Your task to perform on an android device: Open the calendar app, open the side menu, and click the "Day" option Image 0: 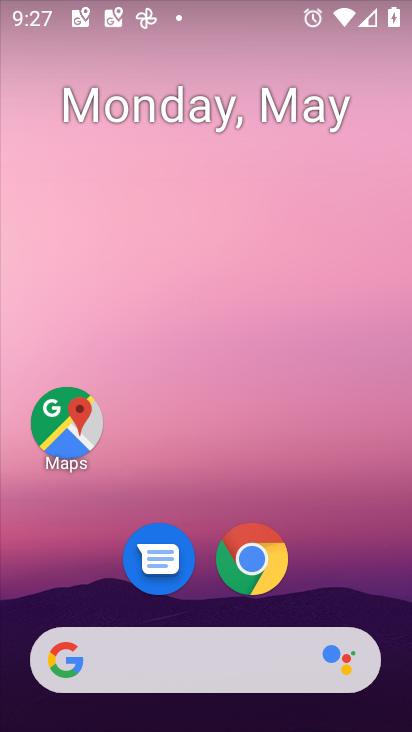
Step 0: drag from (393, 621) to (295, 79)
Your task to perform on an android device: Open the calendar app, open the side menu, and click the "Day" option Image 1: 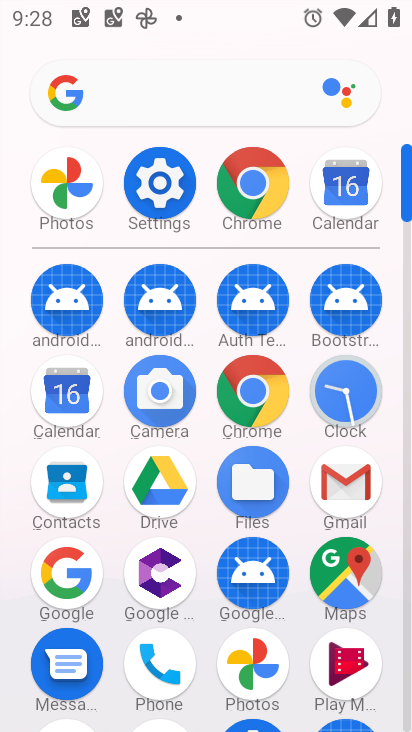
Step 1: click (72, 388)
Your task to perform on an android device: Open the calendar app, open the side menu, and click the "Day" option Image 2: 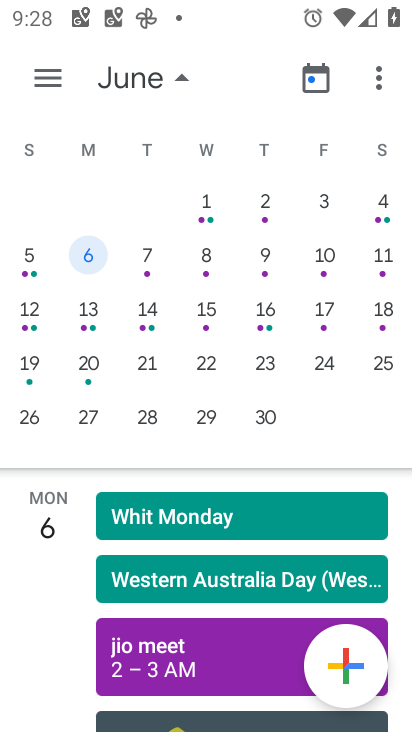
Step 2: click (54, 72)
Your task to perform on an android device: Open the calendar app, open the side menu, and click the "Day" option Image 3: 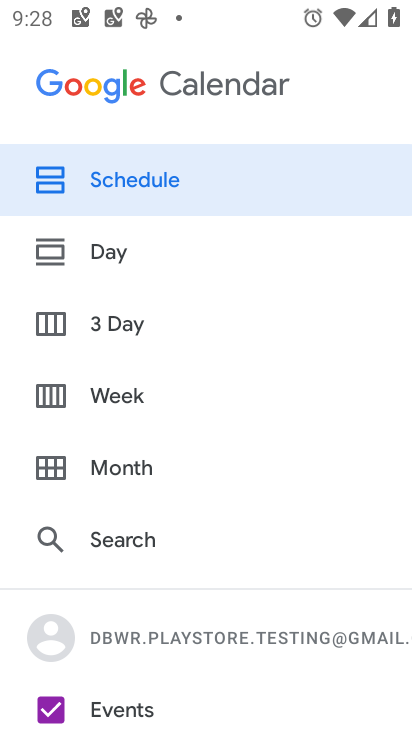
Step 3: click (153, 258)
Your task to perform on an android device: Open the calendar app, open the side menu, and click the "Day" option Image 4: 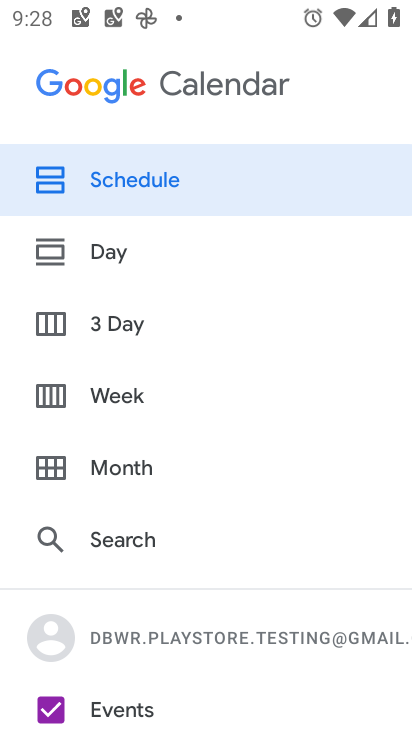
Step 4: click (137, 250)
Your task to perform on an android device: Open the calendar app, open the side menu, and click the "Day" option Image 5: 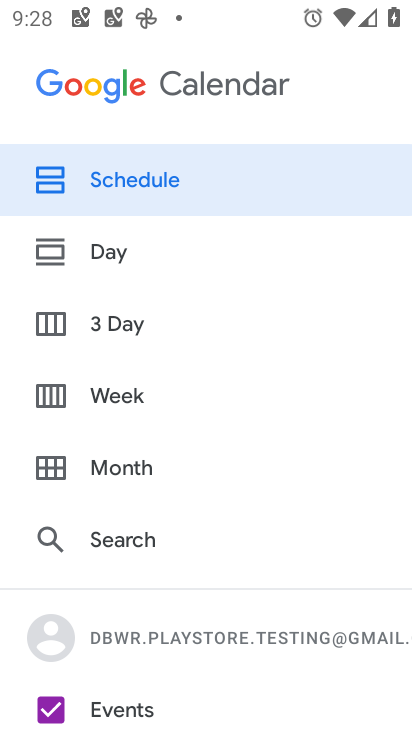
Step 5: click (131, 255)
Your task to perform on an android device: Open the calendar app, open the side menu, and click the "Day" option Image 6: 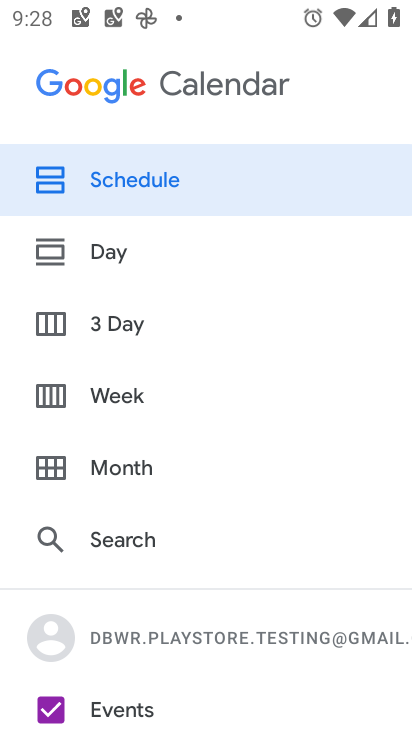
Step 6: click (131, 255)
Your task to perform on an android device: Open the calendar app, open the side menu, and click the "Day" option Image 7: 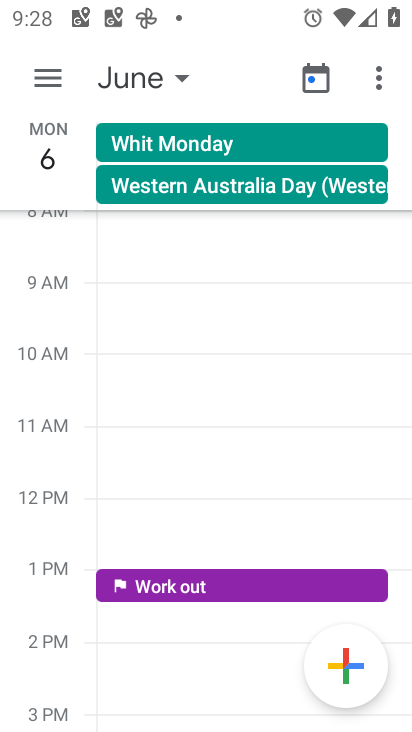
Step 7: task complete